Your task to perform on an android device: turn off notifications in google photos Image 0: 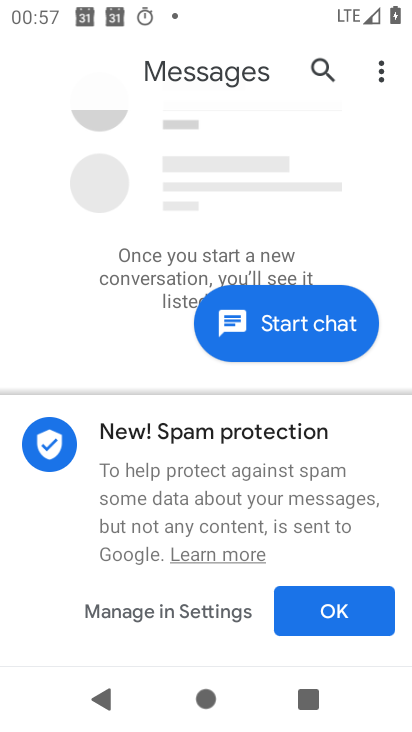
Step 0: press home button
Your task to perform on an android device: turn off notifications in google photos Image 1: 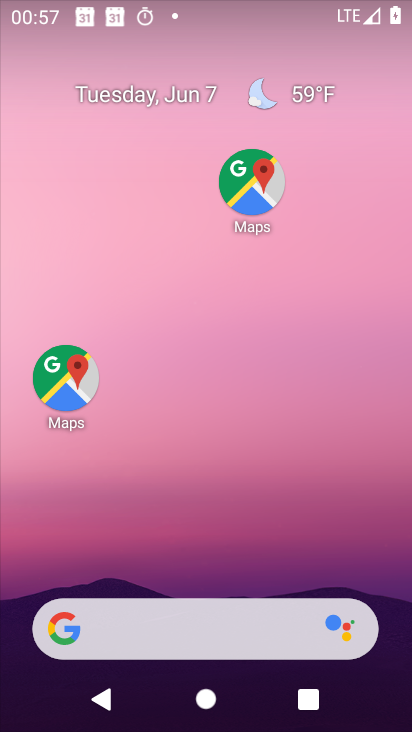
Step 1: drag from (213, 558) to (208, 84)
Your task to perform on an android device: turn off notifications in google photos Image 2: 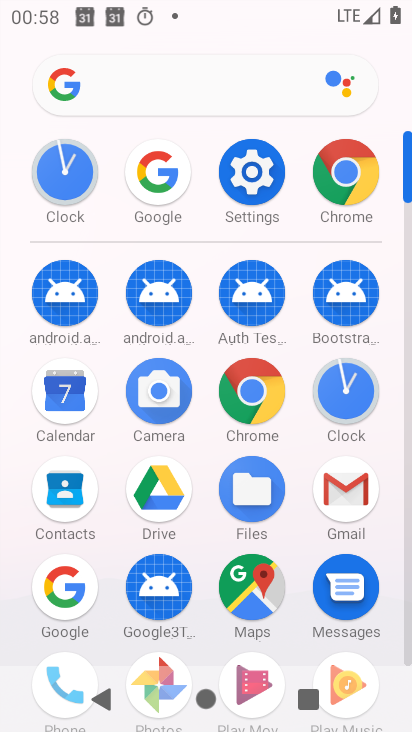
Step 2: drag from (110, 570) to (76, 197)
Your task to perform on an android device: turn off notifications in google photos Image 3: 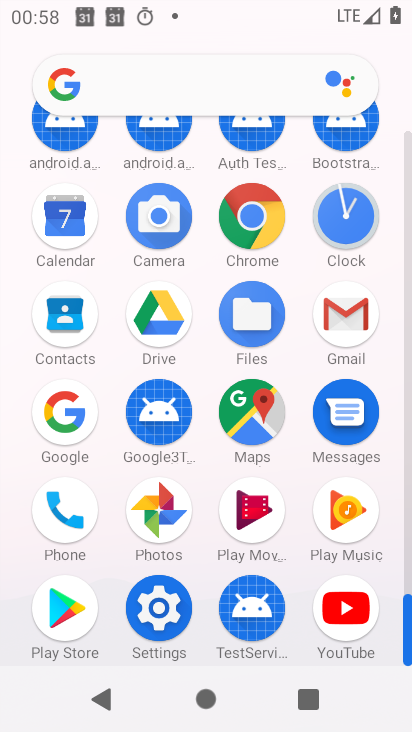
Step 3: click (157, 514)
Your task to perform on an android device: turn off notifications in google photos Image 4: 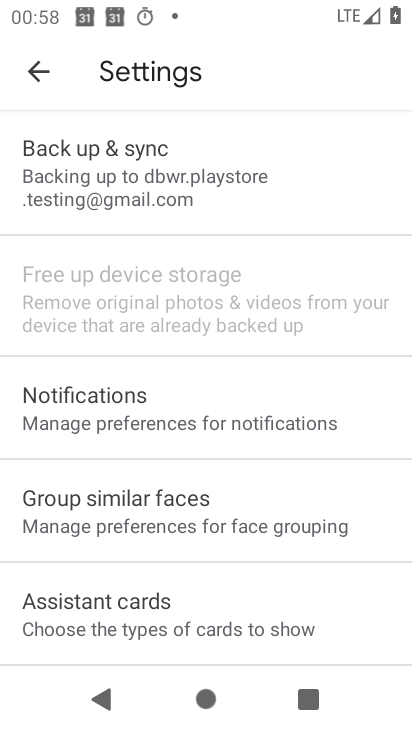
Step 4: drag from (148, 547) to (137, 262)
Your task to perform on an android device: turn off notifications in google photos Image 5: 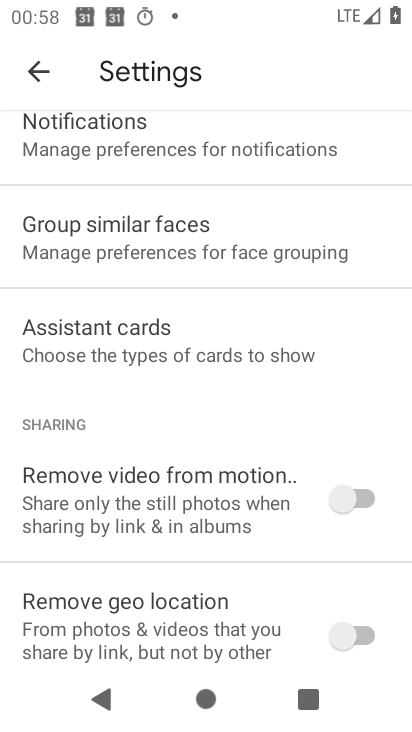
Step 5: click (93, 155)
Your task to perform on an android device: turn off notifications in google photos Image 6: 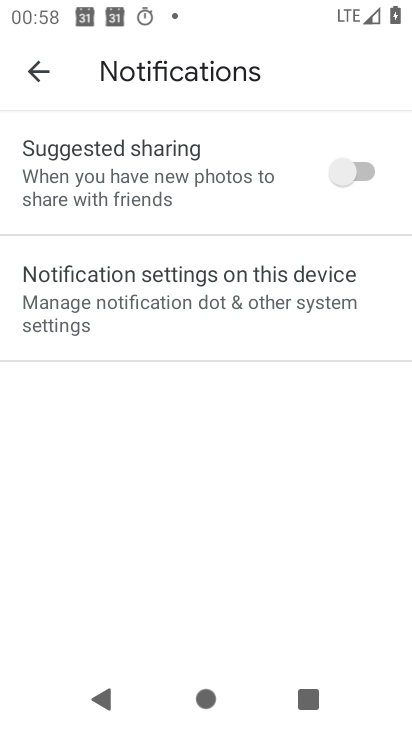
Step 6: click (136, 272)
Your task to perform on an android device: turn off notifications in google photos Image 7: 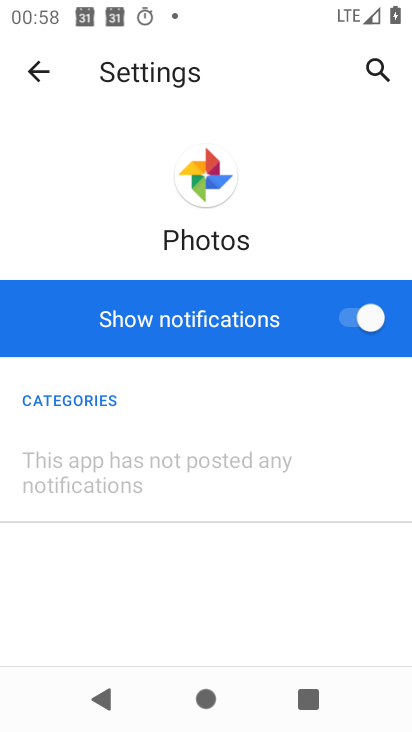
Step 7: click (353, 313)
Your task to perform on an android device: turn off notifications in google photos Image 8: 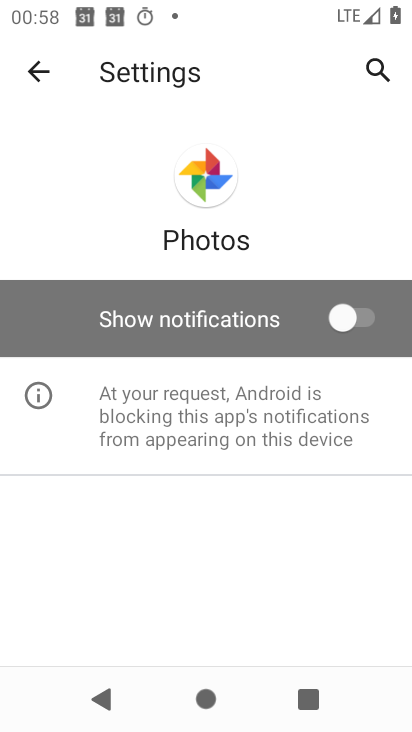
Step 8: task complete